Your task to perform on an android device: Go to Amazon Image 0: 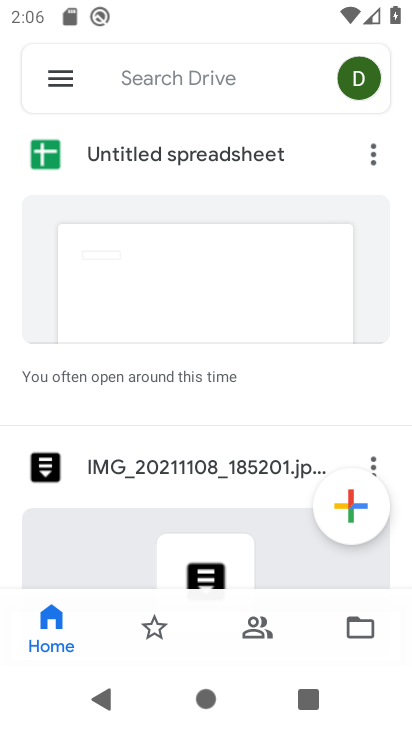
Step 0: press home button
Your task to perform on an android device: Go to Amazon Image 1: 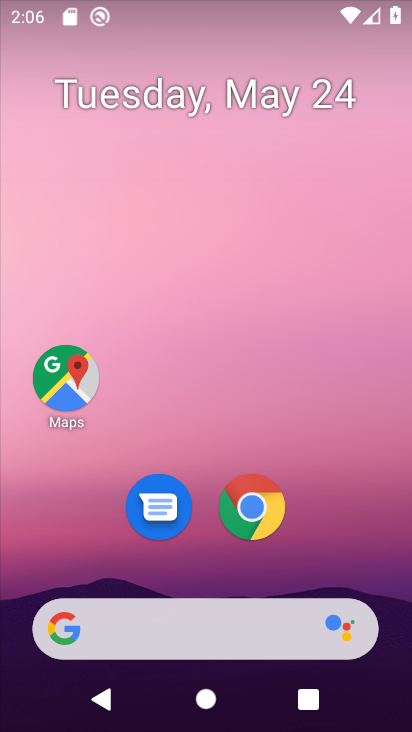
Step 1: click (241, 513)
Your task to perform on an android device: Go to Amazon Image 2: 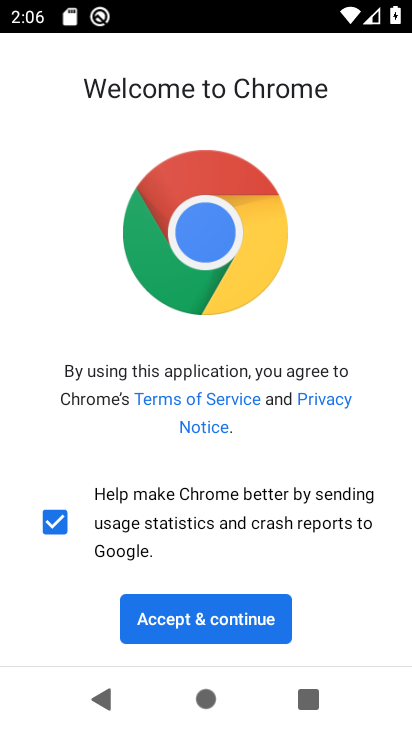
Step 2: click (212, 612)
Your task to perform on an android device: Go to Amazon Image 3: 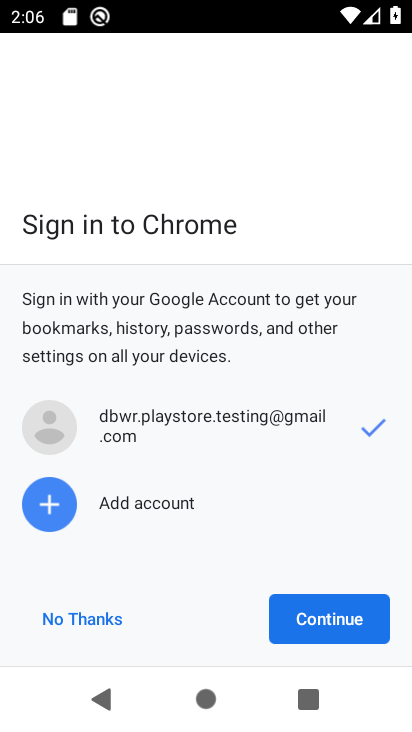
Step 3: click (335, 615)
Your task to perform on an android device: Go to Amazon Image 4: 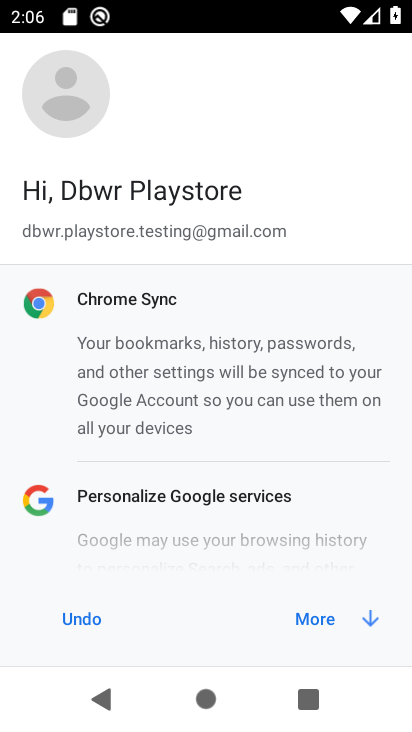
Step 4: click (335, 615)
Your task to perform on an android device: Go to Amazon Image 5: 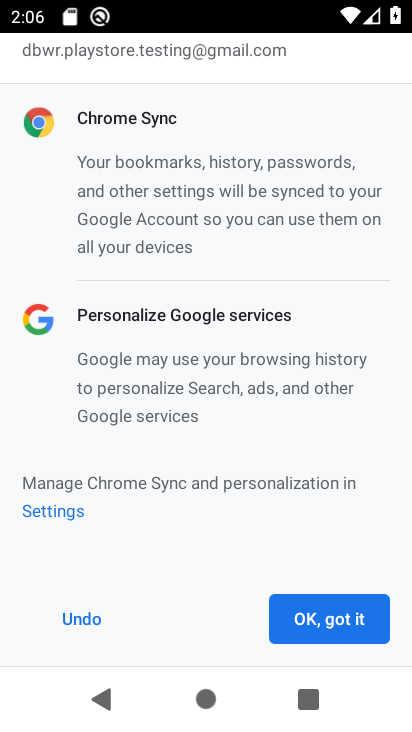
Step 5: click (336, 615)
Your task to perform on an android device: Go to Amazon Image 6: 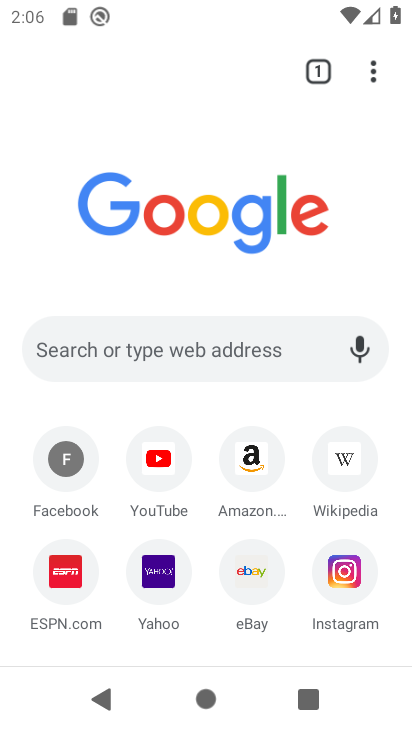
Step 6: click (249, 447)
Your task to perform on an android device: Go to Amazon Image 7: 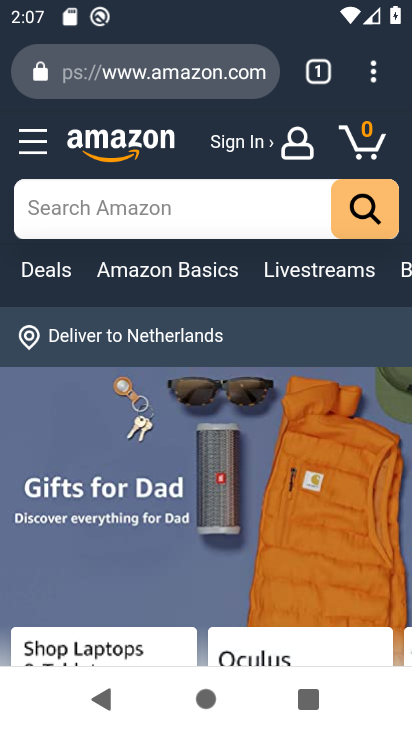
Step 7: task complete